Your task to perform on an android device: Go to battery settings Image 0: 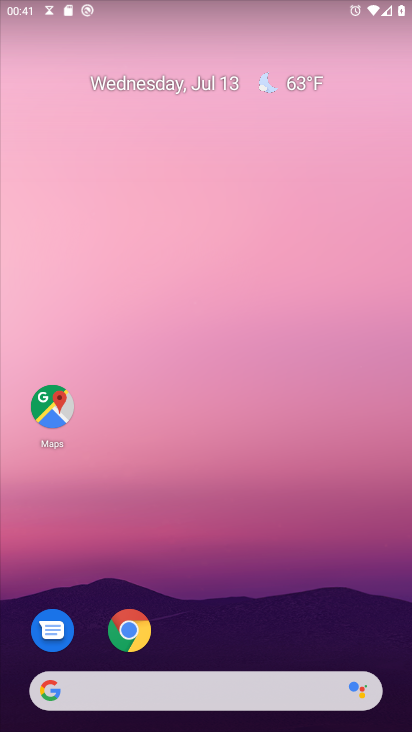
Step 0: drag from (233, 711) to (231, 136)
Your task to perform on an android device: Go to battery settings Image 1: 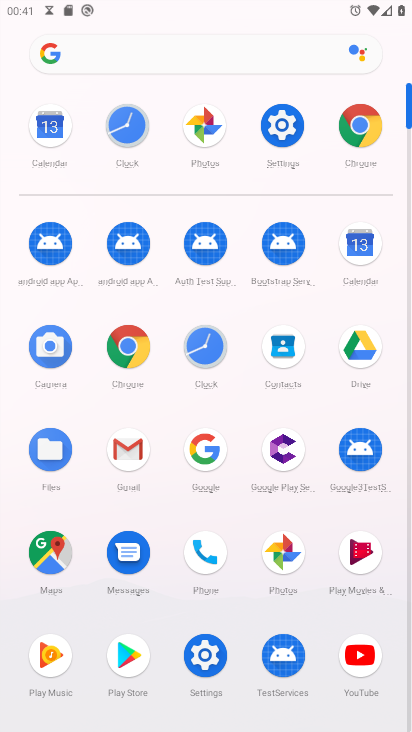
Step 1: click (196, 655)
Your task to perform on an android device: Go to battery settings Image 2: 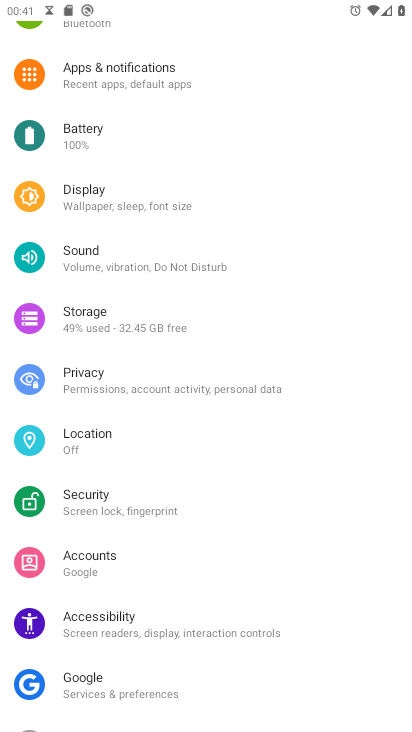
Step 2: click (69, 141)
Your task to perform on an android device: Go to battery settings Image 3: 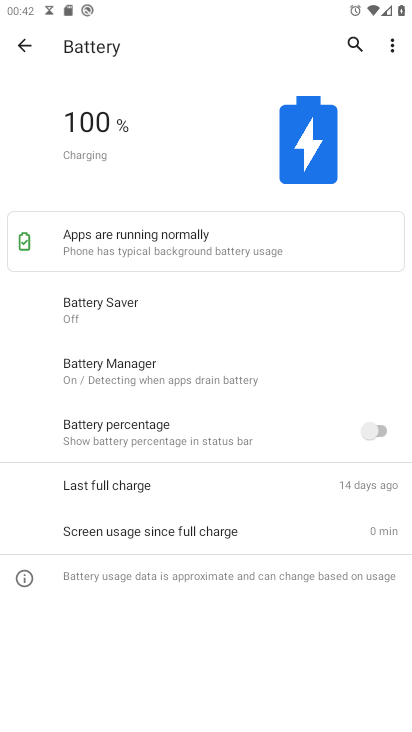
Step 3: task complete